Your task to perform on an android device: Open Maps and search for coffee Image 0: 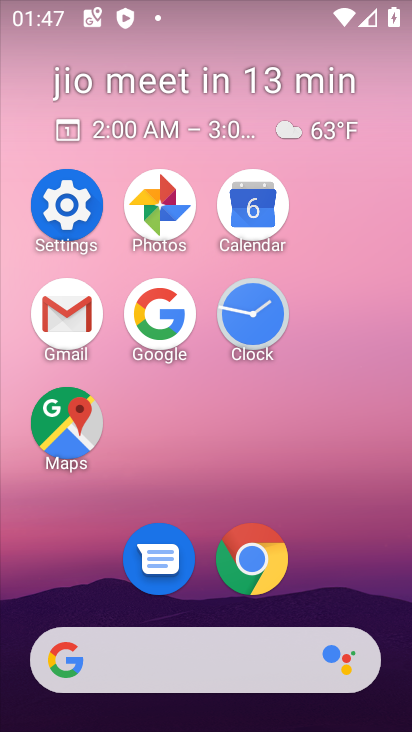
Step 0: click (56, 395)
Your task to perform on an android device: Open Maps and search for coffee Image 1: 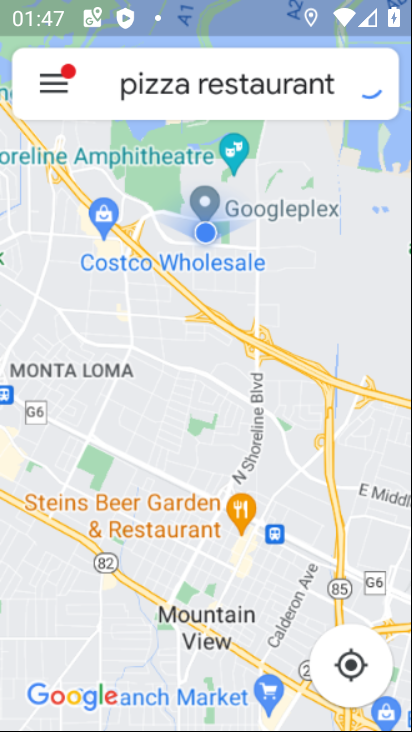
Step 1: click (262, 92)
Your task to perform on an android device: Open Maps and search for coffee Image 2: 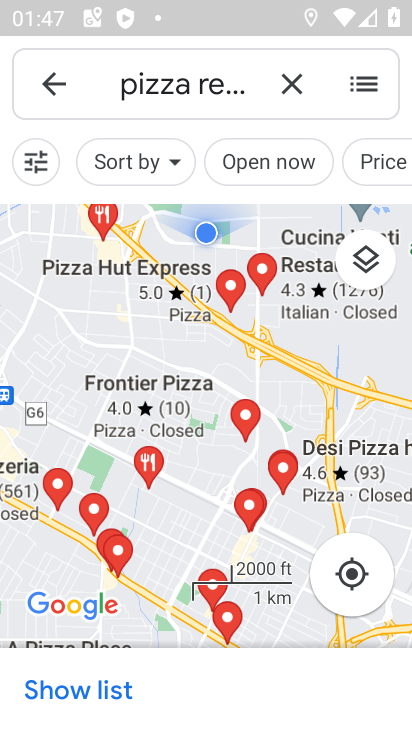
Step 2: click (297, 86)
Your task to perform on an android device: Open Maps and search for coffee Image 3: 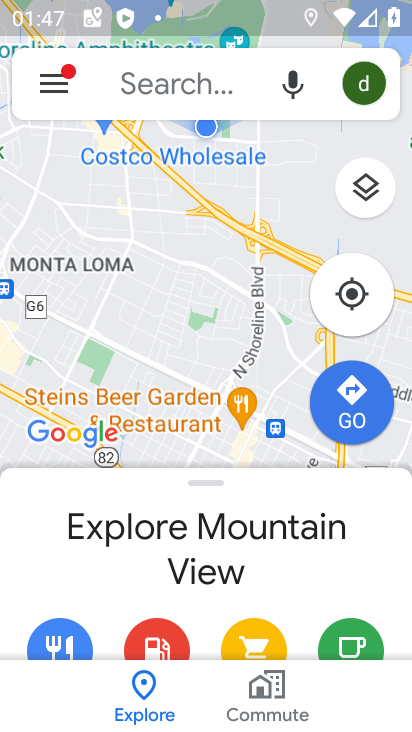
Step 3: click (165, 77)
Your task to perform on an android device: Open Maps and search for coffee Image 4: 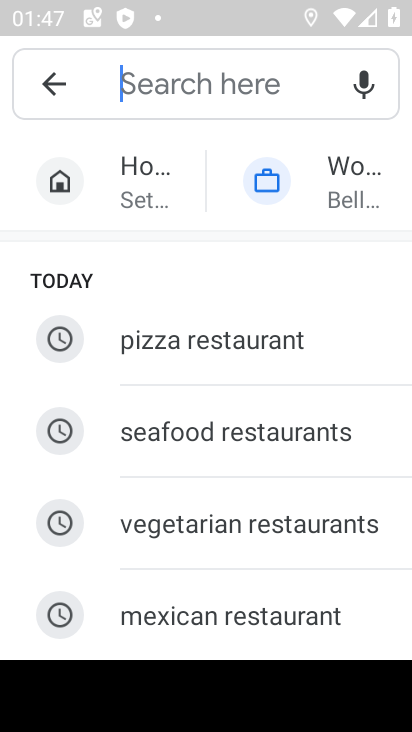
Step 4: drag from (216, 484) to (238, 159)
Your task to perform on an android device: Open Maps and search for coffee Image 5: 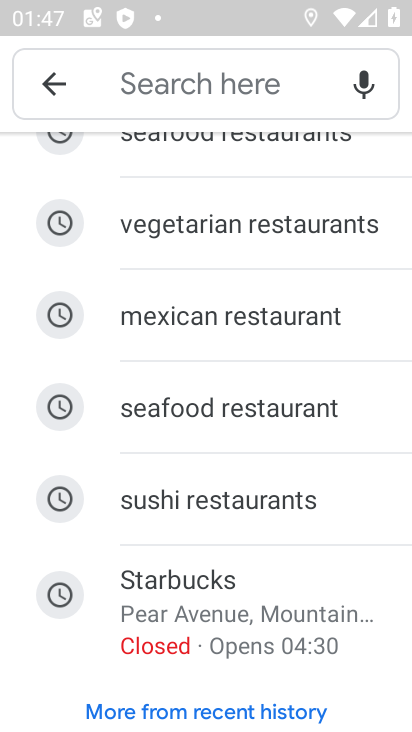
Step 5: drag from (181, 512) to (209, 182)
Your task to perform on an android device: Open Maps and search for coffee Image 6: 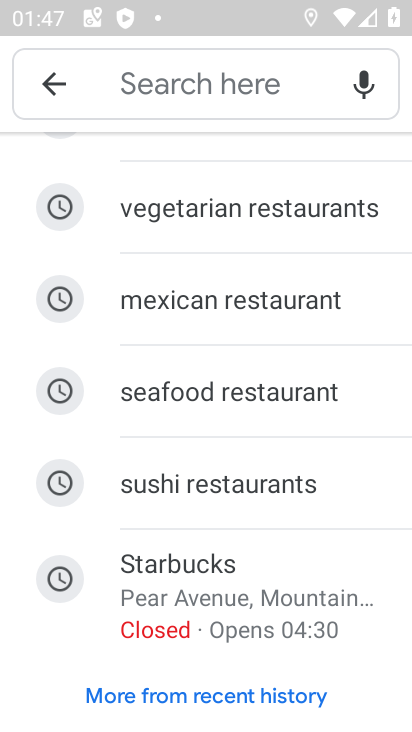
Step 6: click (246, 94)
Your task to perform on an android device: Open Maps and search for coffee Image 7: 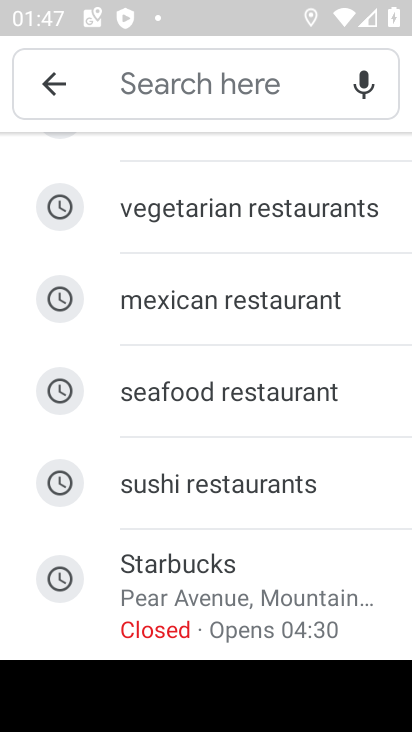
Step 7: type "coffee"
Your task to perform on an android device: Open Maps and search for coffee Image 8: 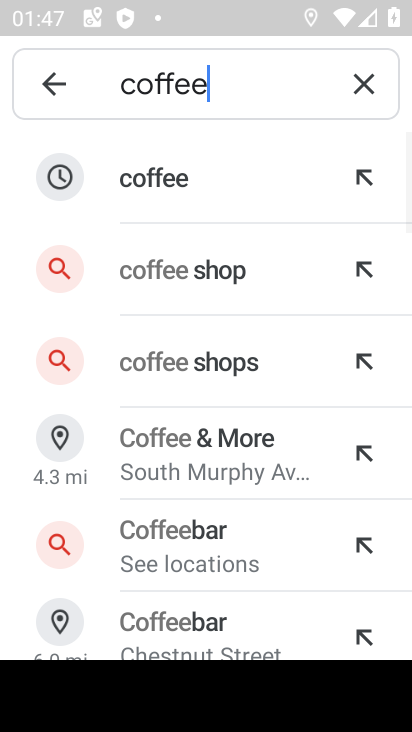
Step 8: task complete